Your task to perform on an android device: find snoozed emails in the gmail app Image 0: 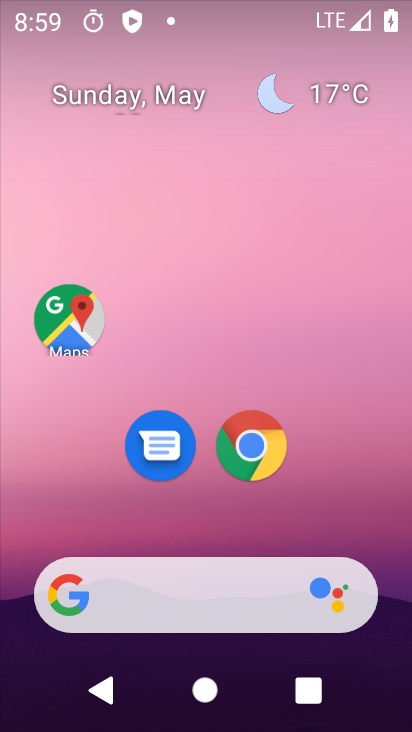
Step 0: drag from (213, 531) to (285, 223)
Your task to perform on an android device: find snoozed emails in the gmail app Image 1: 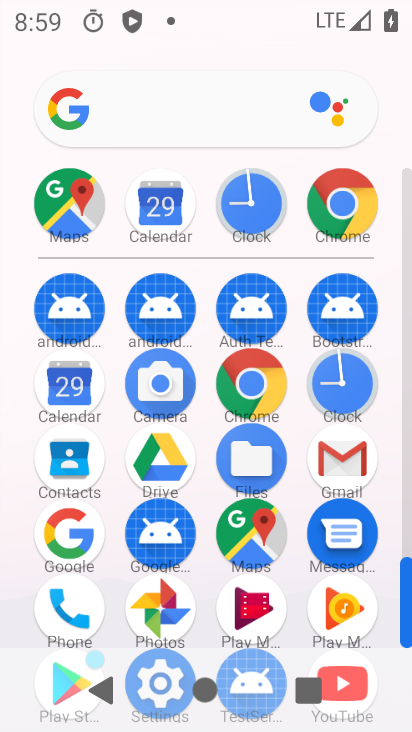
Step 1: click (335, 443)
Your task to perform on an android device: find snoozed emails in the gmail app Image 2: 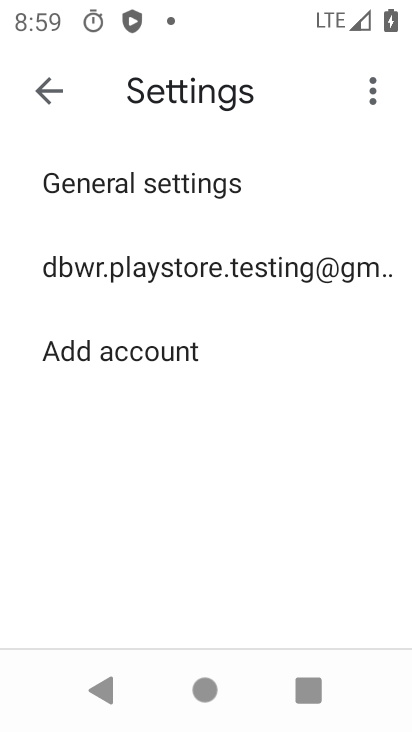
Step 2: click (44, 94)
Your task to perform on an android device: find snoozed emails in the gmail app Image 3: 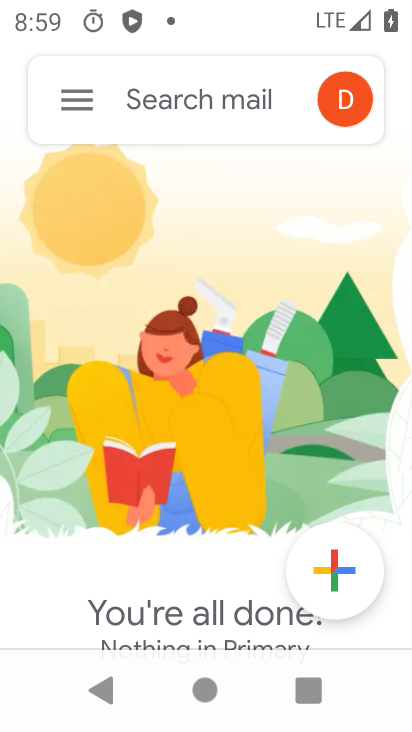
Step 3: click (68, 105)
Your task to perform on an android device: find snoozed emails in the gmail app Image 4: 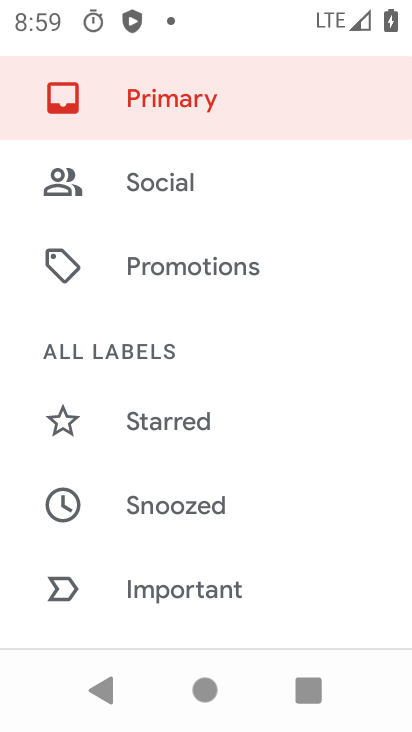
Step 4: drag from (203, 529) to (212, 0)
Your task to perform on an android device: find snoozed emails in the gmail app Image 5: 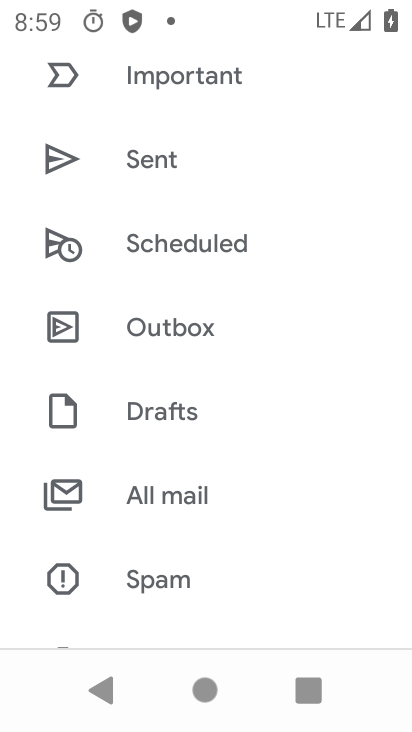
Step 5: drag from (209, 188) to (315, 530)
Your task to perform on an android device: find snoozed emails in the gmail app Image 6: 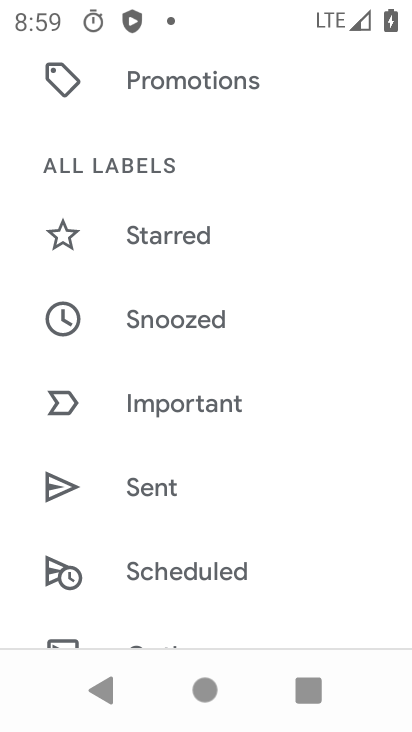
Step 6: click (218, 327)
Your task to perform on an android device: find snoozed emails in the gmail app Image 7: 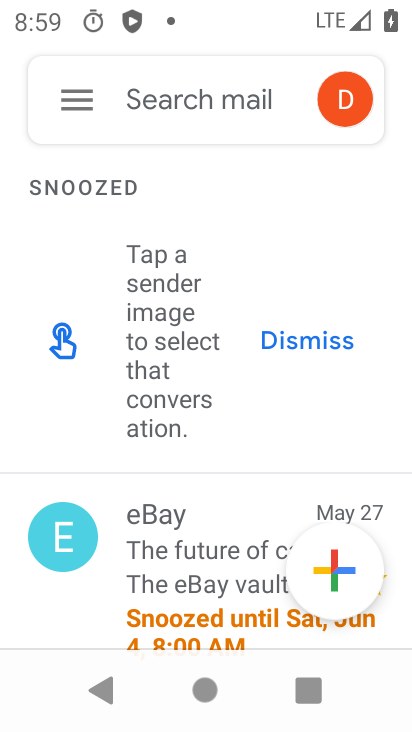
Step 7: task complete